Your task to perform on an android device: Install the Spotify app Image 0: 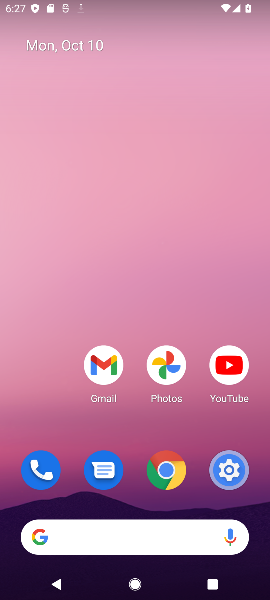
Step 0: drag from (137, 508) to (72, 132)
Your task to perform on an android device: Install the Spotify app Image 1: 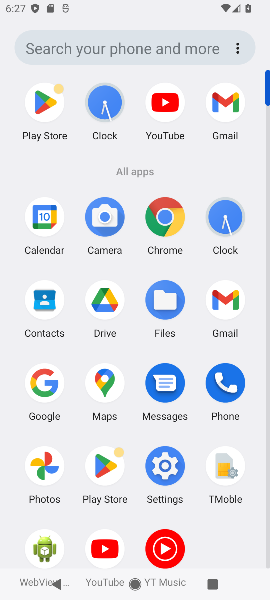
Step 1: click (52, 92)
Your task to perform on an android device: Install the Spotify app Image 2: 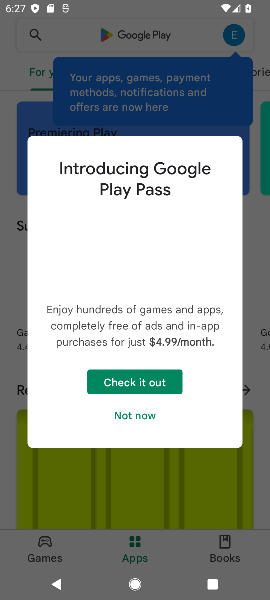
Step 2: click (116, 46)
Your task to perform on an android device: Install the Spotify app Image 3: 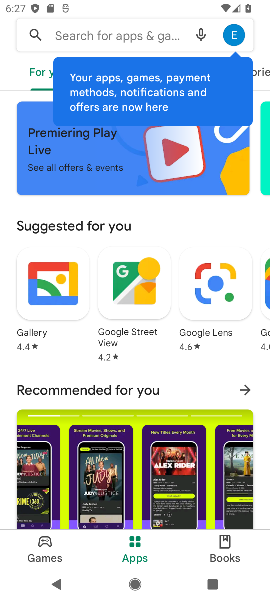
Step 3: click (104, 43)
Your task to perform on an android device: Install the Spotify app Image 4: 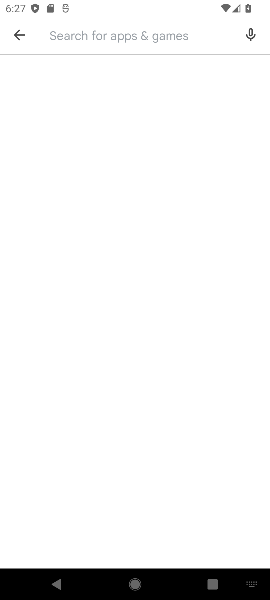
Step 4: type "spotify"
Your task to perform on an android device: Install the Spotify app Image 5: 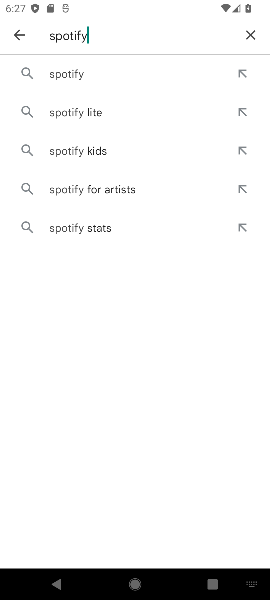
Step 5: click (152, 80)
Your task to perform on an android device: Install the Spotify app Image 6: 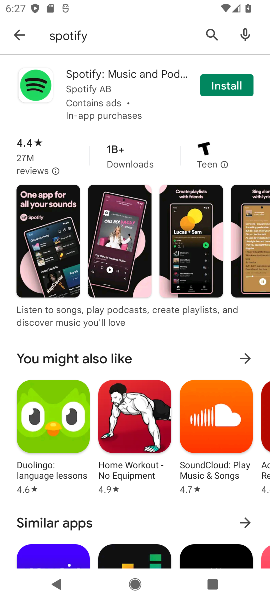
Step 6: click (214, 83)
Your task to perform on an android device: Install the Spotify app Image 7: 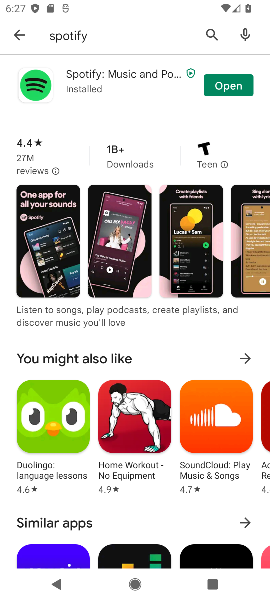
Step 7: task complete